Your task to perform on an android device: Open Youtube and go to "Your channel" Image 0: 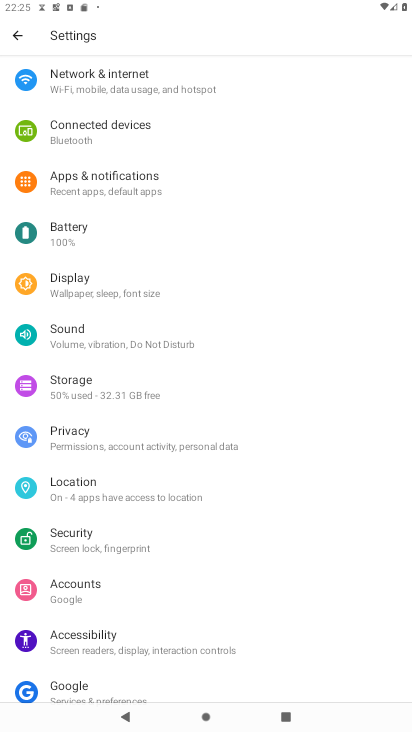
Step 0: press home button
Your task to perform on an android device: Open Youtube and go to "Your channel" Image 1: 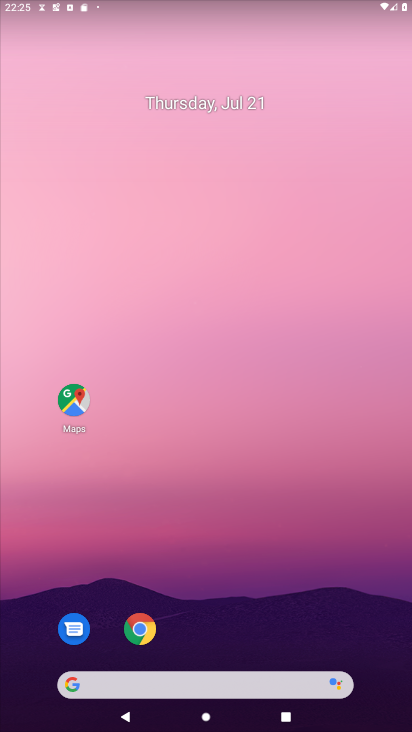
Step 1: drag from (280, 599) to (245, 161)
Your task to perform on an android device: Open Youtube and go to "Your channel" Image 2: 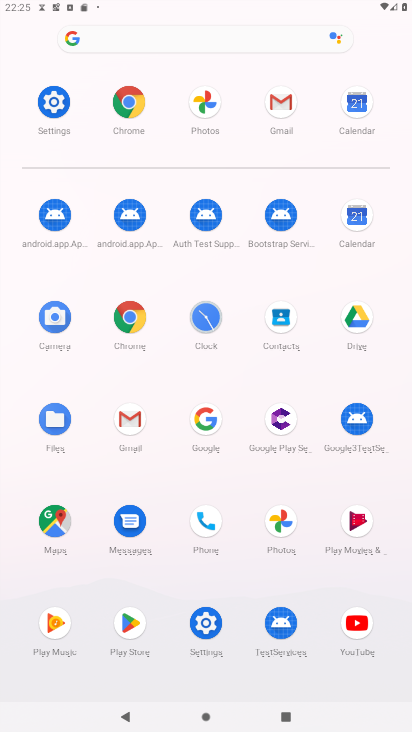
Step 2: click (365, 612)
Your task to perform on an android device: Open Youtube and go to "Your channel" Image 3: 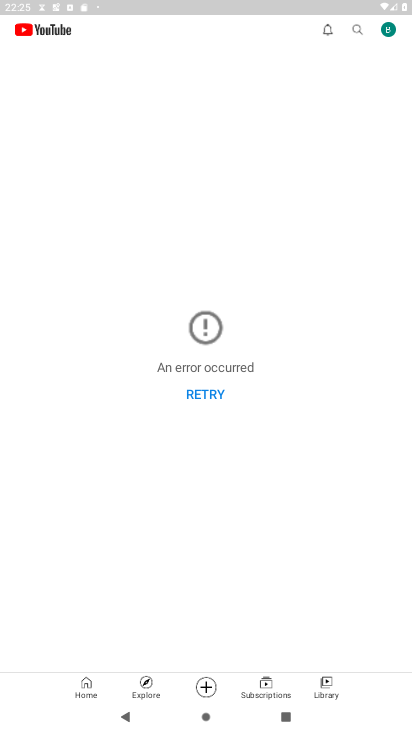
Step 3: click (379, 32)
Your task to perform on an android device: Open Youtube and go to "Your channel" Image 4: 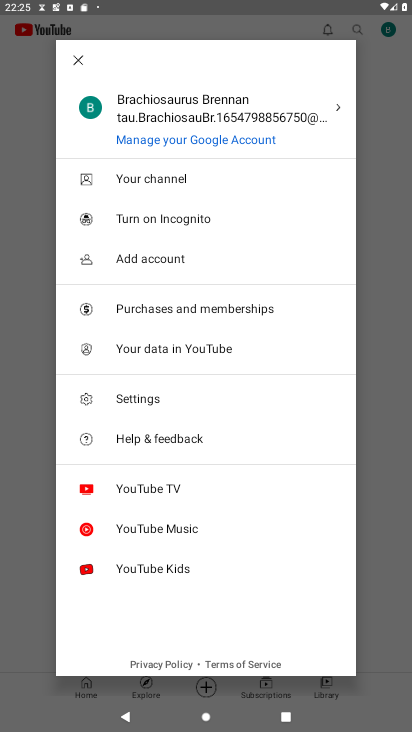
Step 4: click (167, 186)
Your task to perform on an android device: Open Youtube and go to "Your channel" Image 5: 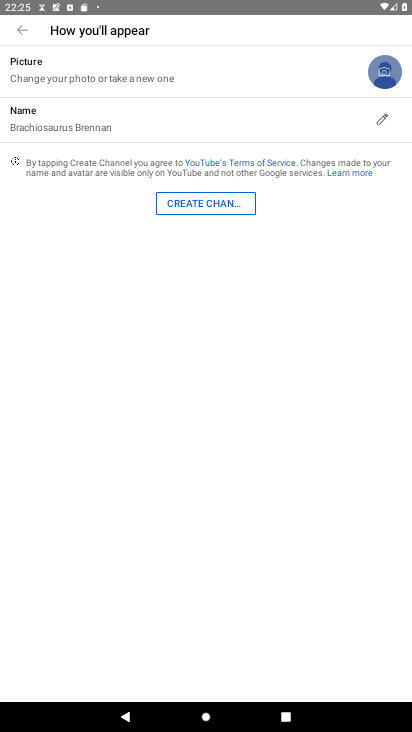
Step 5: task complete